Your task to perform on an android device: Do I have any events tomorrow? Image 0: 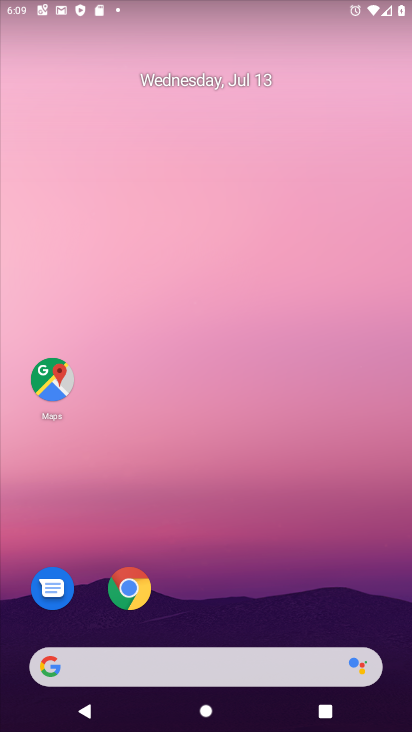
Step 0: drag from (240, 383) to (251, 173)
Your task to perform on an android device: Do I have any events tomorrow? Image 1: 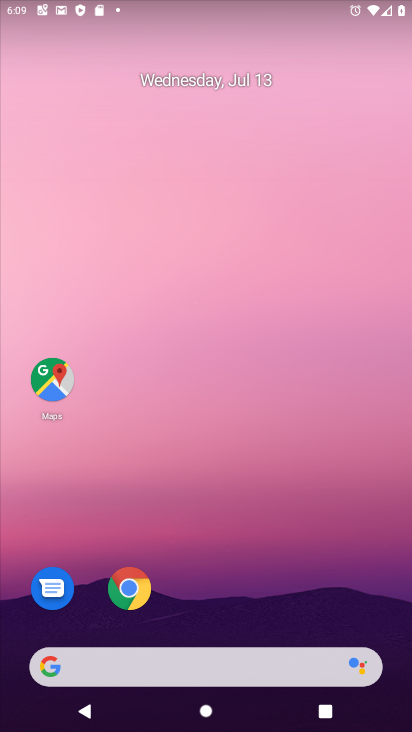
Step 1: drag from (191, 462) to (180, 59)
Your task to perform on an android device: Do I have any events tomorrow? Image 2: 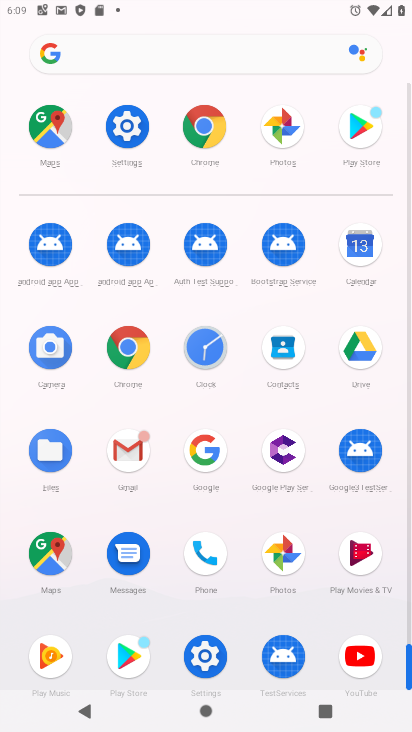
Step 2: click (352, 276)
Your task to perform on an android device: Do I have any events tomorrow? Image 3: 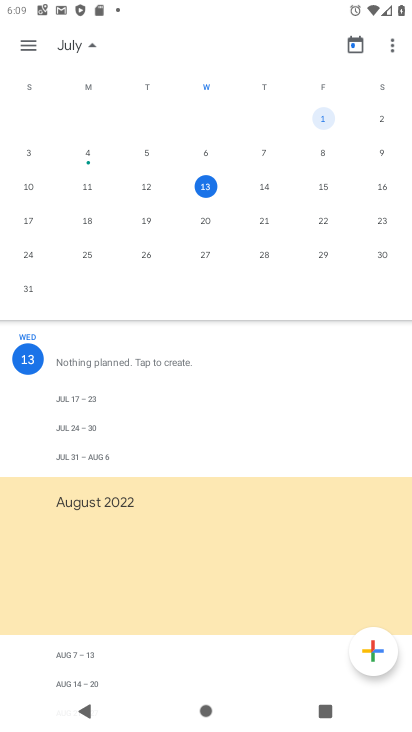
Step 3: click (255, 188)
Your task to perform on an android device: Do I have any events tomorrow? Image 4: 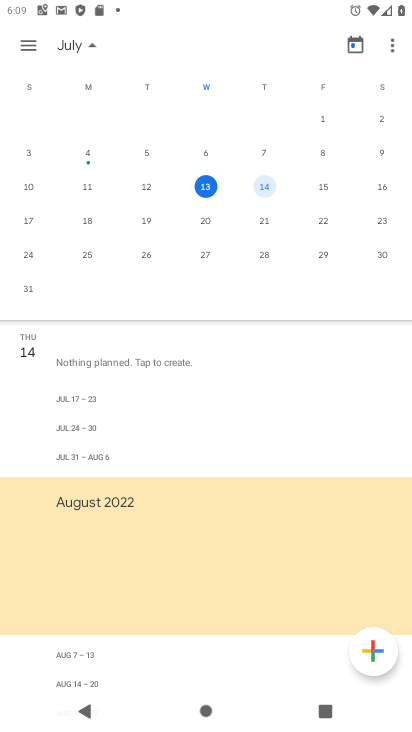
Step 4: task complete